Your task to perform on an android device: turn notification dots off Image 0: 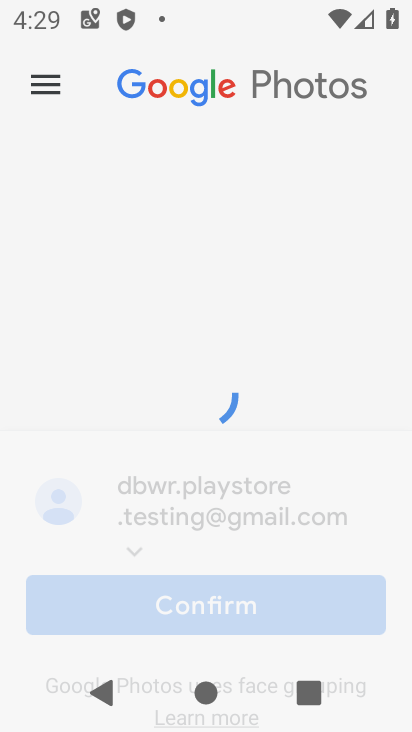
Step 0: press home button
Your task to perform on an android device: turn notification dots off Image 1: 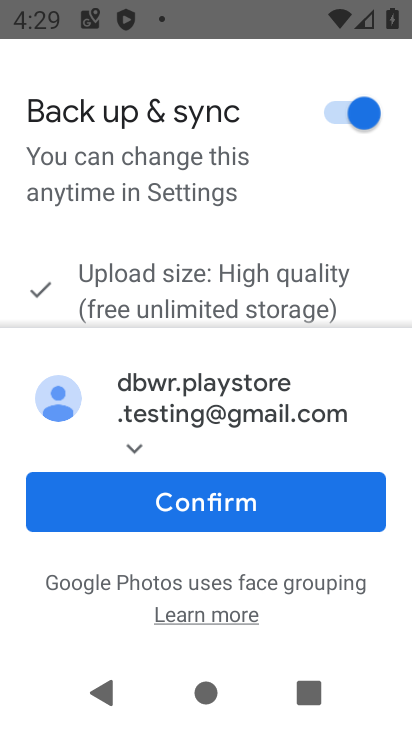
Step 1: press home button
Your task to perform on an android device: turn notification dots off Image 2: 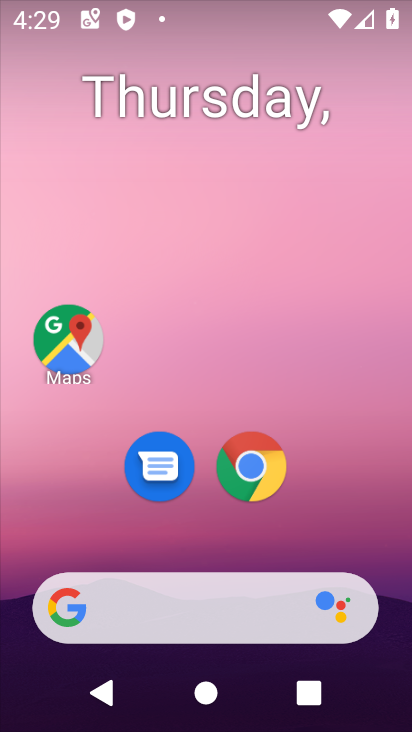
Step 2: drag from (210, 547) to (243, 52)
Your task to perform on an android device: turn notification dots off Image 3: 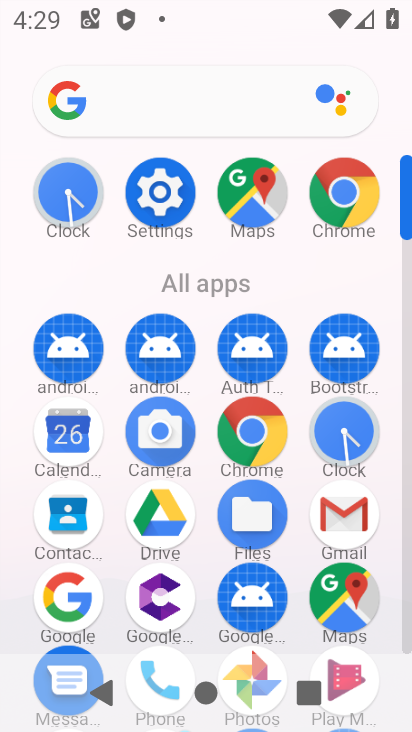
Step 3: click (159, 183)
Your task to perform on an android device: turn notification dots off Image 4: 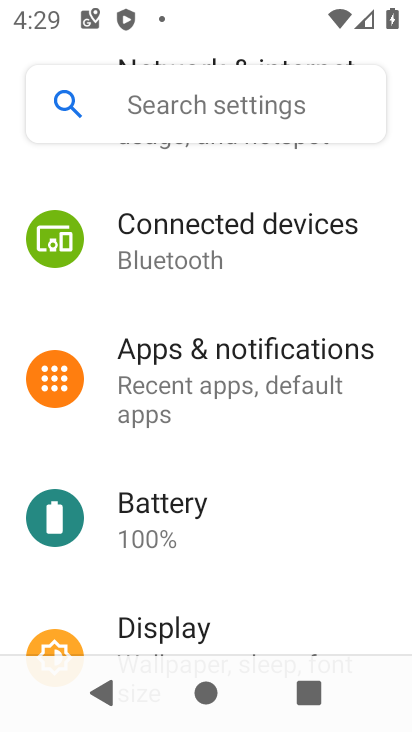
Step 4: click (220, 357)
Your task to perform on an android device: turn notification dots off Image 5: 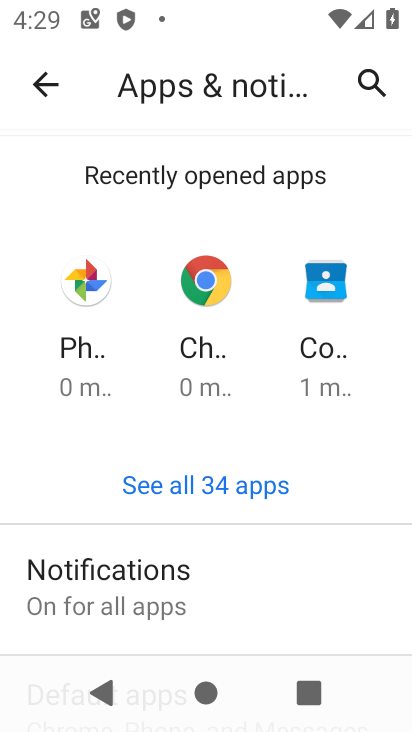
Step 5: click (208, 590)
Your task to perform on an android device: turn notification dots off Image 6: 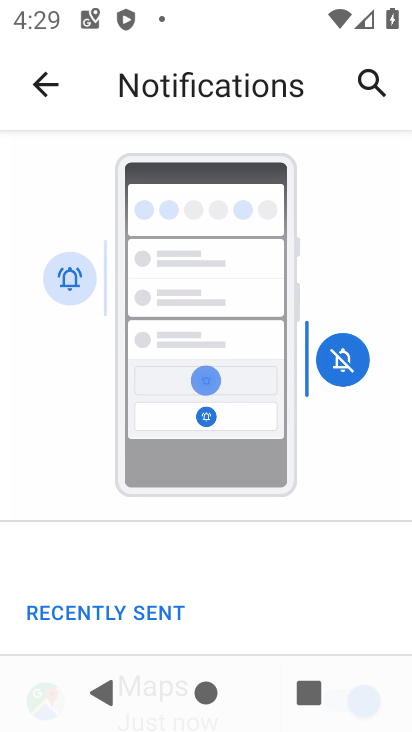
Step 6: drag from (245, 610) to (243, 171)
Your task to perform on an android device: turn notification dots off Image 7: 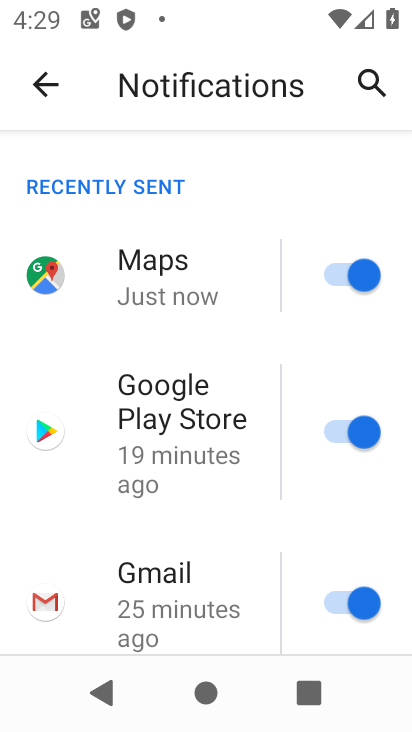
Step 7: drag from (246, 615) to (266, 152)
Your task to perform on an android device: turn notification dots off Image 8: 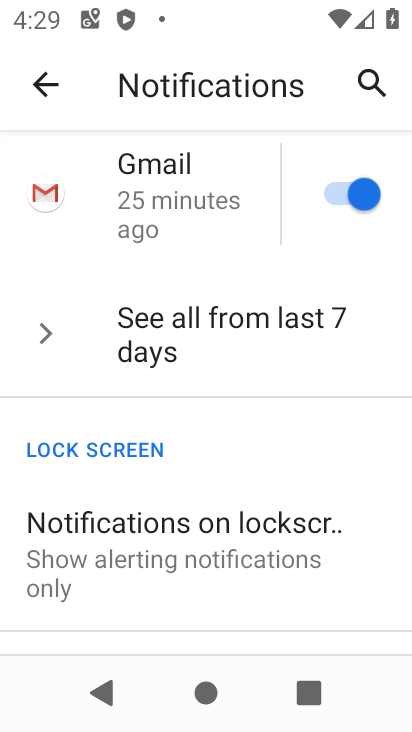
Step 8: drag from (202, 614) to (225, 119)
Your task to perform on an android device: turn notification dots off Image 9: 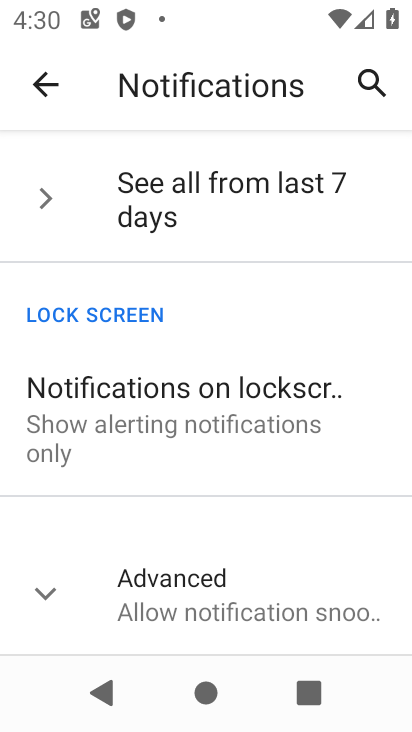
Step 9: click (49, 588)
Your task to perform on an android device: turn notification dots off Image 10: 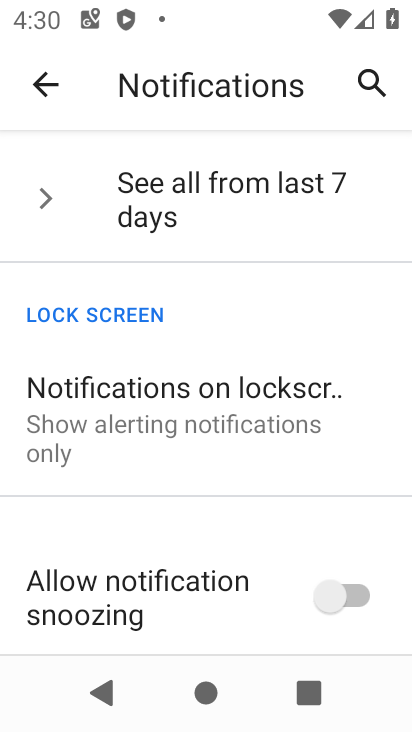
Step 10: drag from (194, 591) to (221, 194)
Your task to perform on an android device: turn notification dots off Image 11: 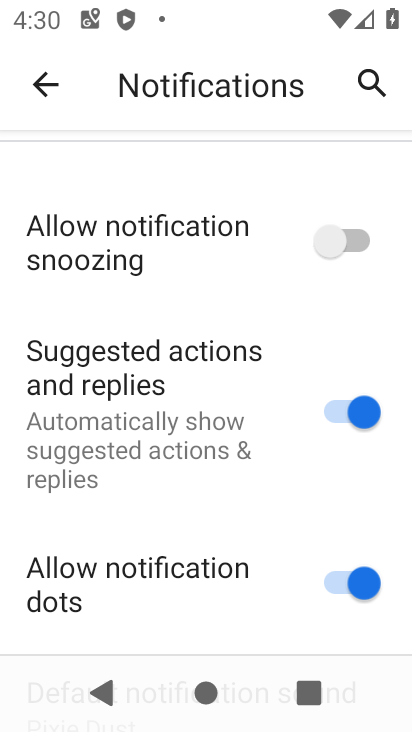
Step 11: click (338, 572)
Your task to perform on an android device: turn notification dots off Image 12: 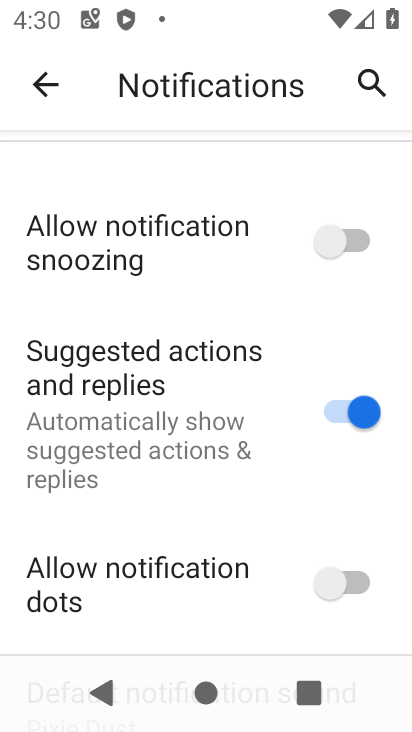
Step 12: task complete